Your task to perform on an android device: turn vacation reply on in the gmail app Image 0: 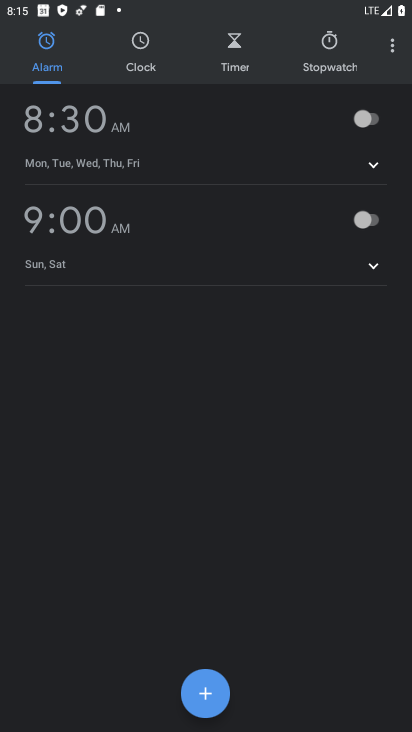
Step 0: press home button
Your task to perform on an android device: turn vacation reply on in the gmail app Image 1: 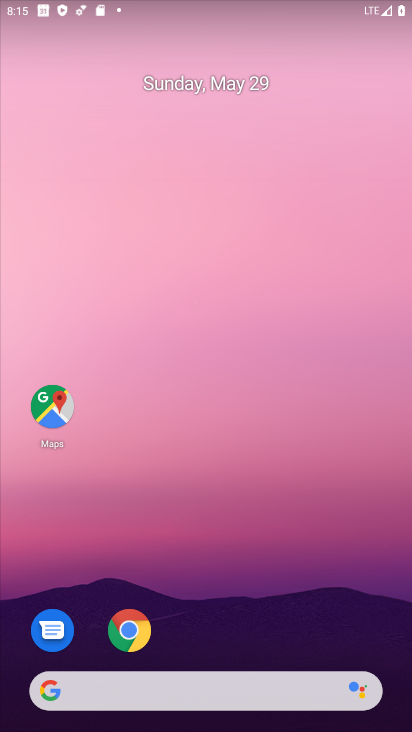
Step 1: drag from (234, 647) to (121, 111)
Your task to perform on an android device: turn vacation reply on in the gmail app Image 2: 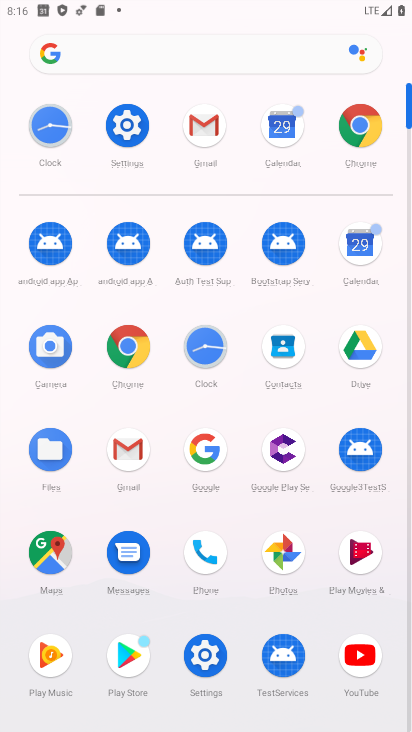
Step 2: click (203, 119)
Your task to perform on an android device: turn vacation reply on in the gmail app Image 3: 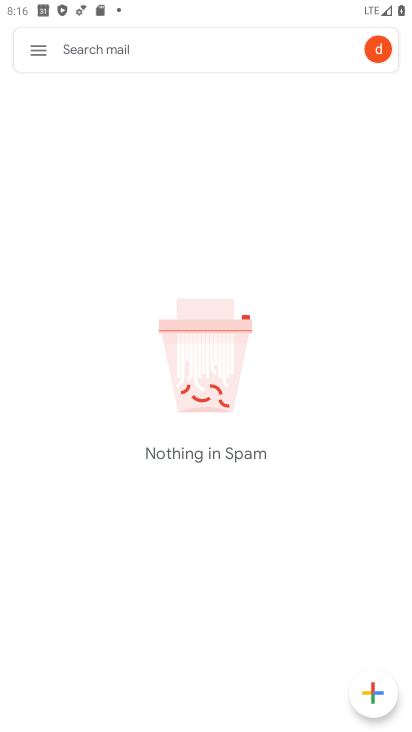
Step 3: click (25, 41)
Your task to perform on an android device: turn vacation reply on in the gmail app Image 4: 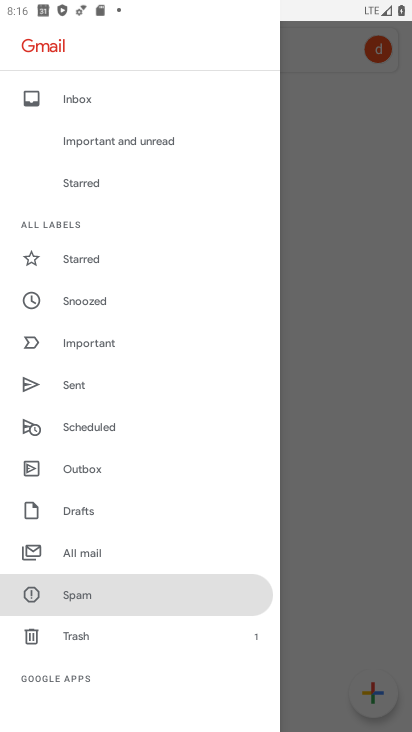
Step 4: drag from (201, 540) to (133, 13)
Your task to perform on an android device: turn vacation reply on in the gmail app Image 5: 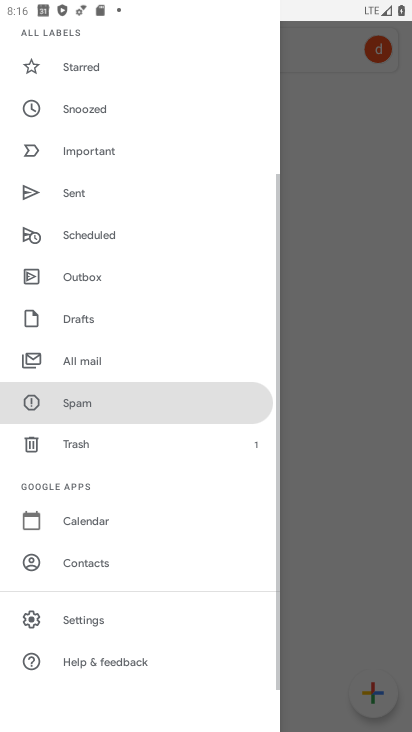
Step 5: click (47, 625)
Your task to perform on an android device: turn vacation reply on in the gmail app Image 6: 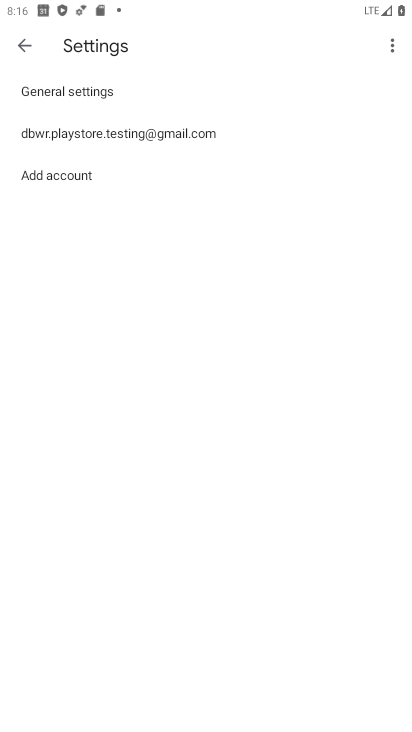
Step 6: click (34, 146)
Your task to perform on an android device: turn vacation reply on in the gmail app Image 7: 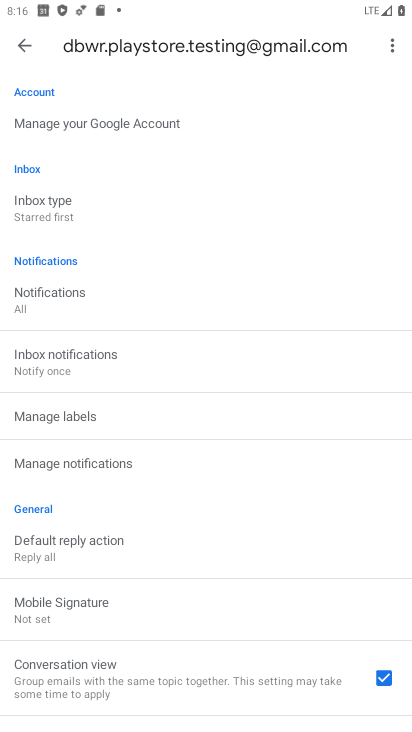
Step 7: drag from (275, 579) to (244, 212)
Your task to perform on an android device: turn vacation reply on in the gmail app Image 8: 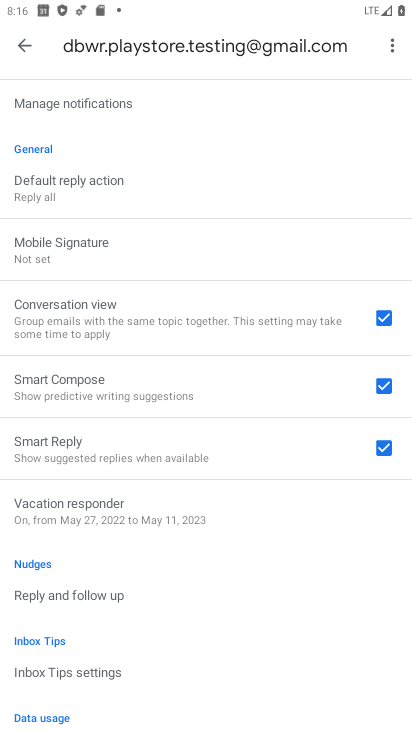
Step 8: click (58, 529)
Your task to perform on an android device: turn vacation reply on in the gmail app Image 9: 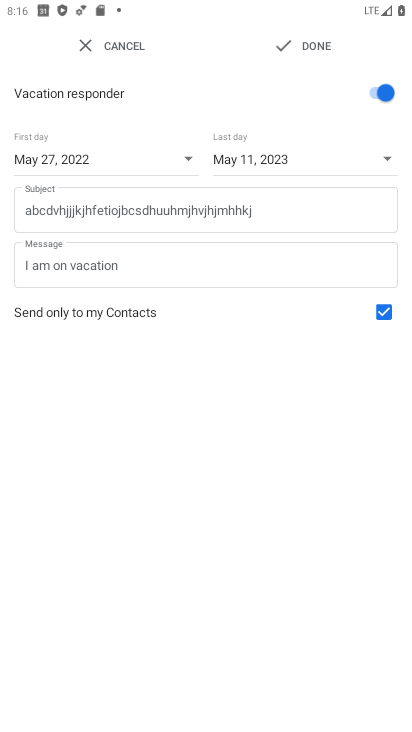
Step 9: click (307, 43)
Your task to perform on an android device: turn vacation reply on in the gmail app Image 10: 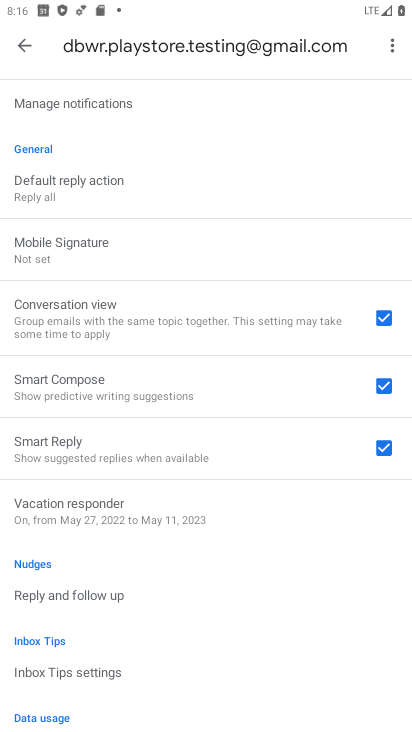
Step 10: click (147, 522)
Your task to perform on an android device: turn vacation reply on in the gmail app Image 11: 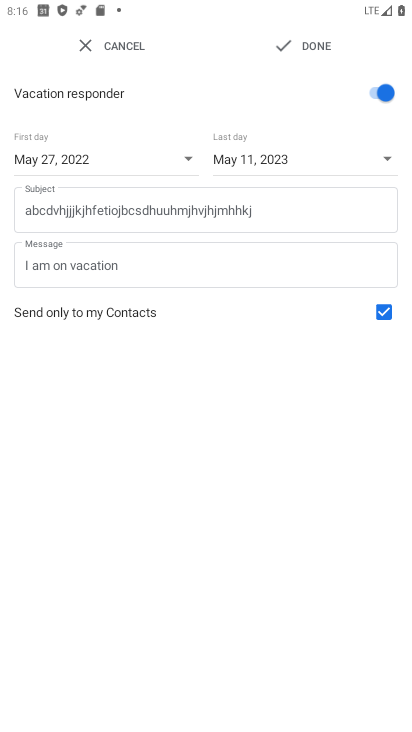
Step 11: click (313, 55)
Your task to perform on an android device: turn vacation reply on in the gmail app Image 12: 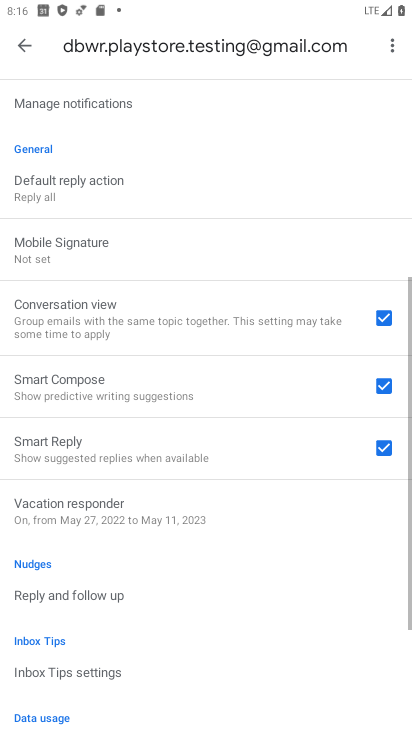
Step 12: task complete